Your task to perform on an android device: View the shopping cart on walmart.com. Add "macbook pro" to the cart on walmart.com, then select checkout. Image 0: 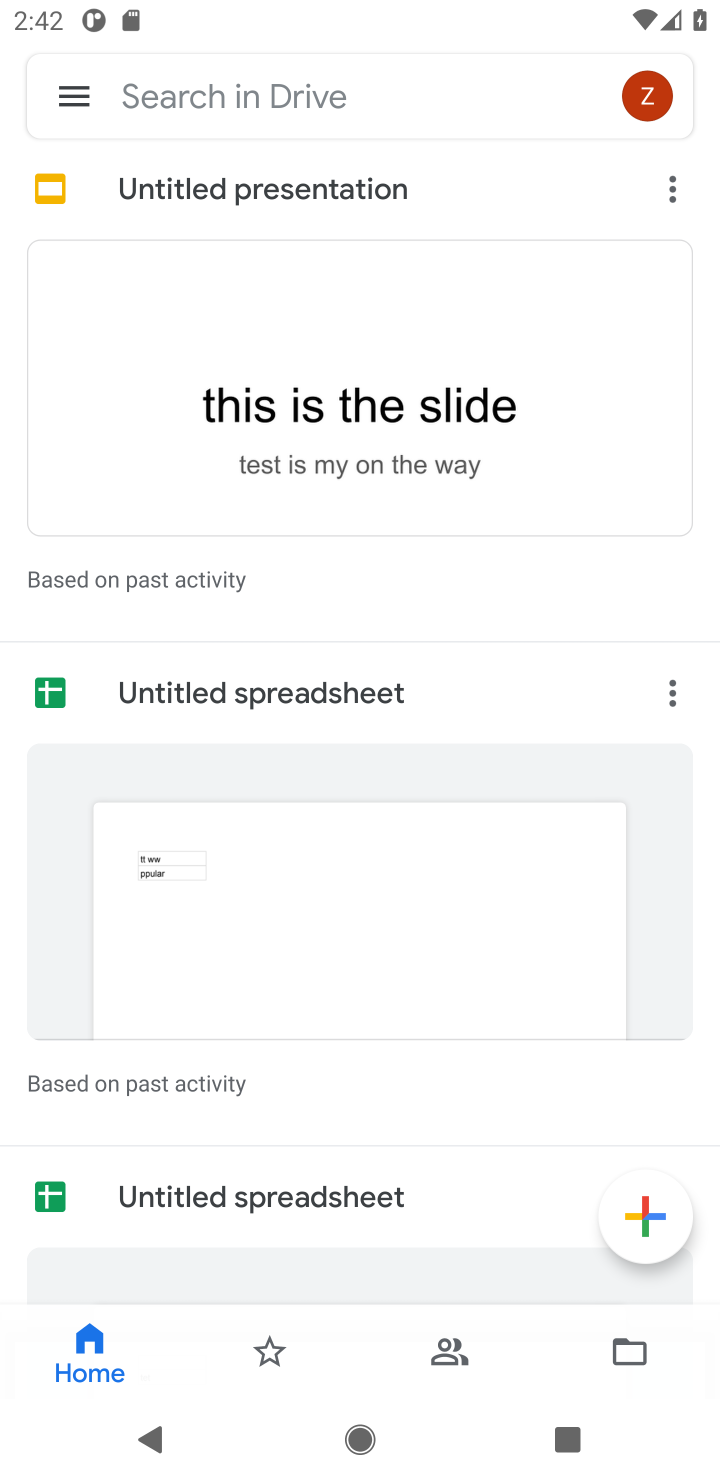
Step 0: press home button
Your task to perform on an android device: View the shopping cart on walmart.com. Add "macbook pro" to the cart on walmart.com, then select checkout. Image 1: 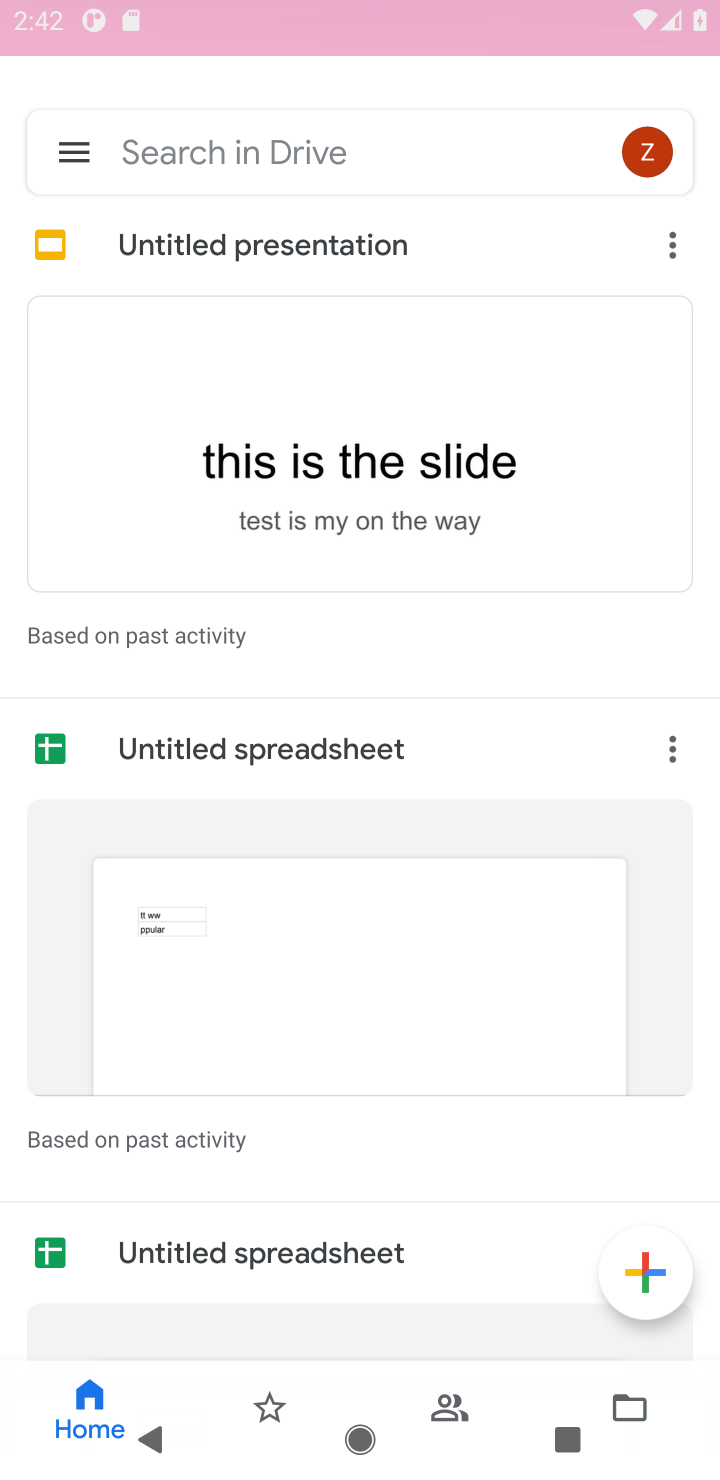
Step 1: press home button
Your task to perform on an android device: View the shopping cart on walmart.com. Add "macbook pro" to the cart on walmart.com, then select checkout. Image 2: 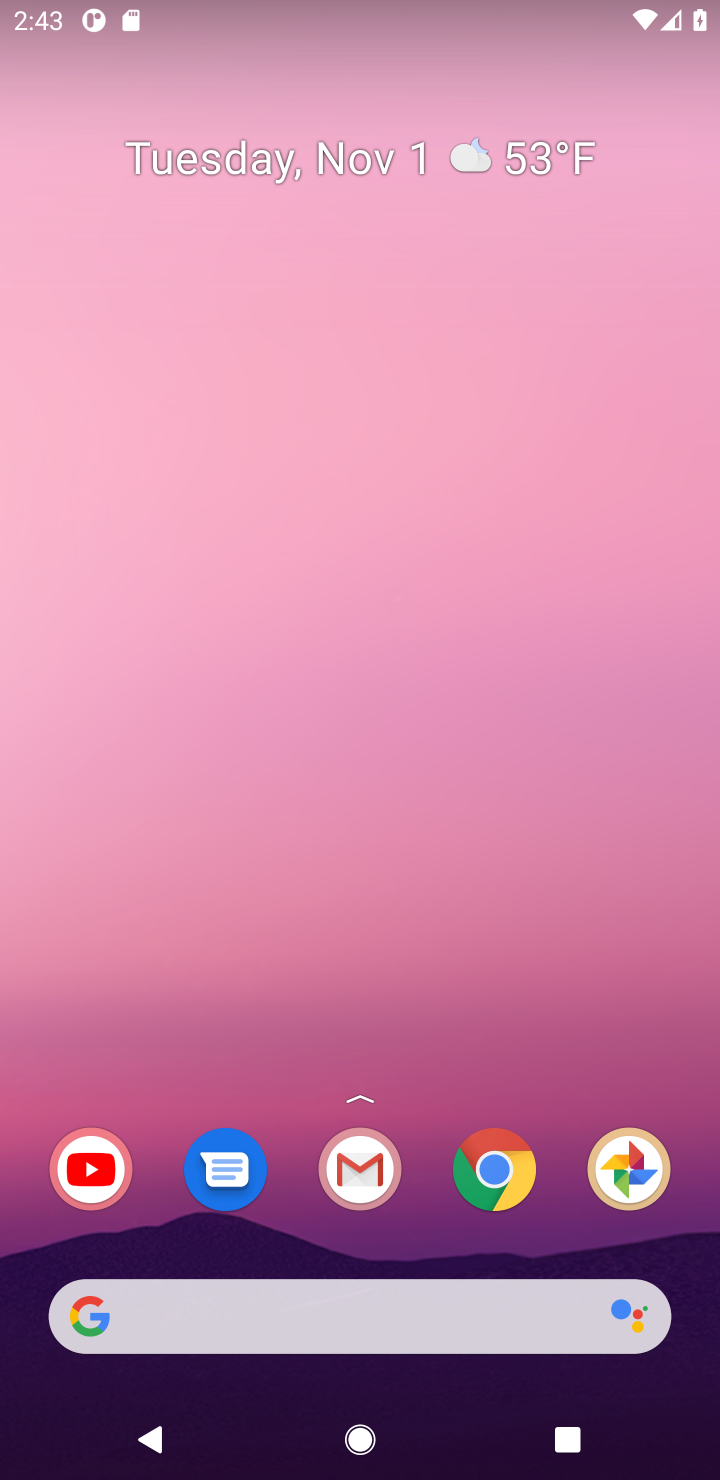
Step 2: drag from (415, 1117) to (489, 65)
Your task to perform on an android device: View the shopping cart on walmart.com. Add "macbook pro" to the cart on walmart.com, then select checkout. Image 3: 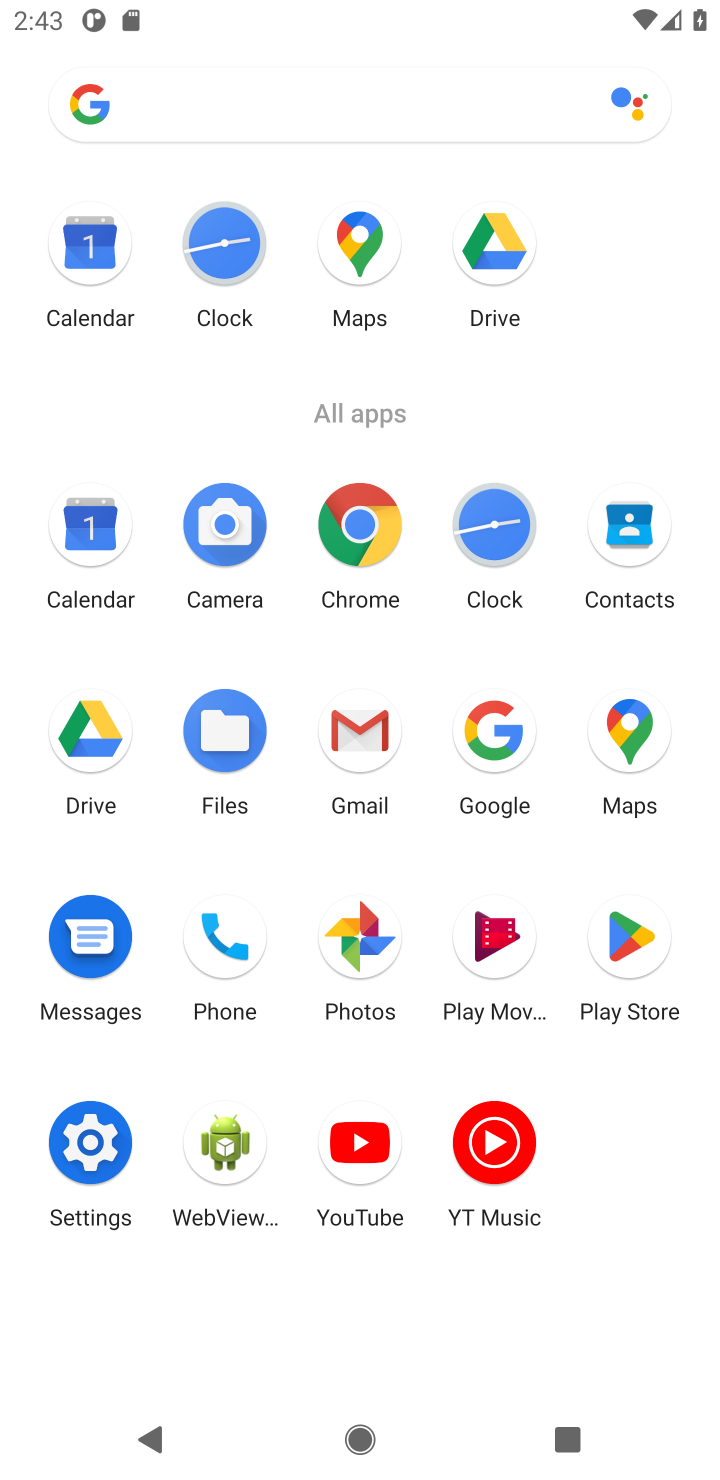
Step 3: click (361, 518)
Your task to perform on an android device: View the shopping cart on walmart.com. Add "macbook pro" to the cart on walmart.com, then select checkout. Image 4: 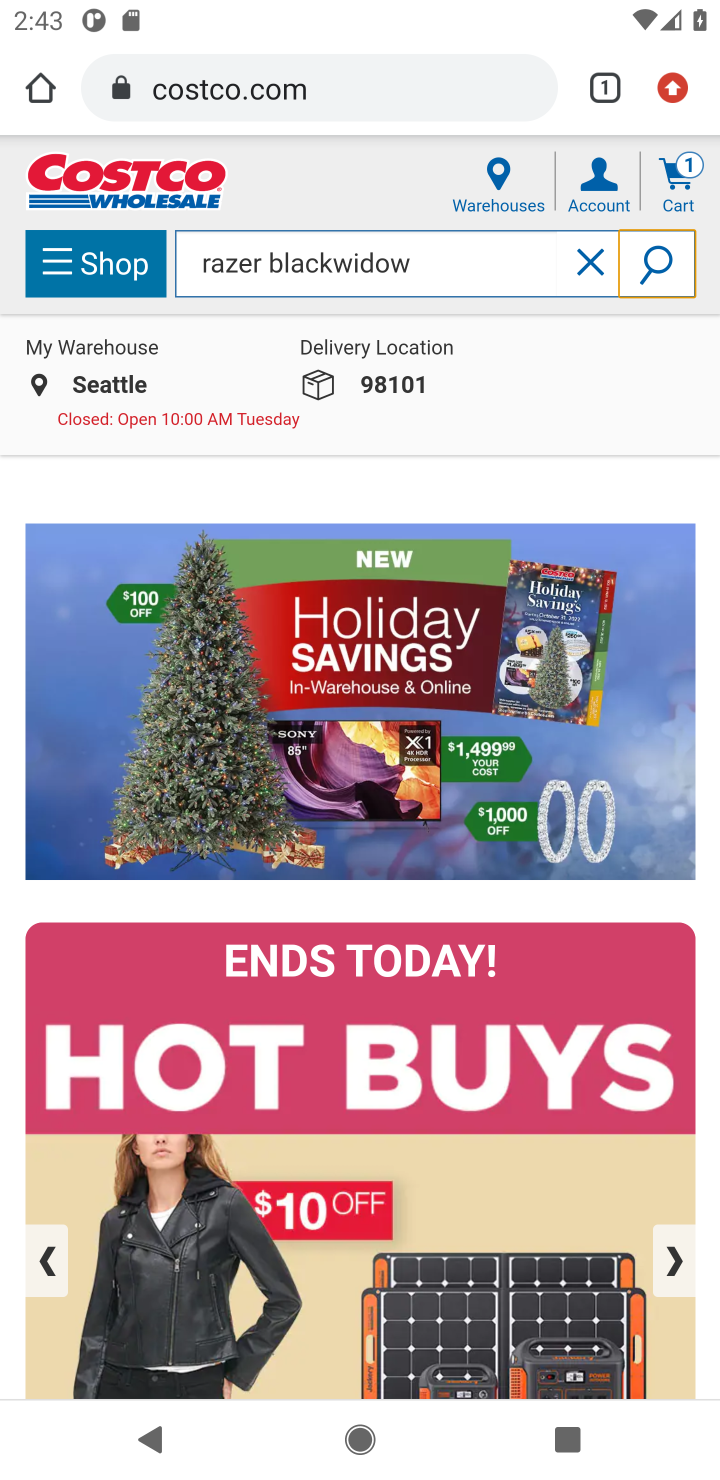
Step 4: click (247, 88)
Your task to perform on an android device: View the shopping cart on walmart.com. Add "macbook pro" to the cart on walmart.com, then select checkout. Image 5: 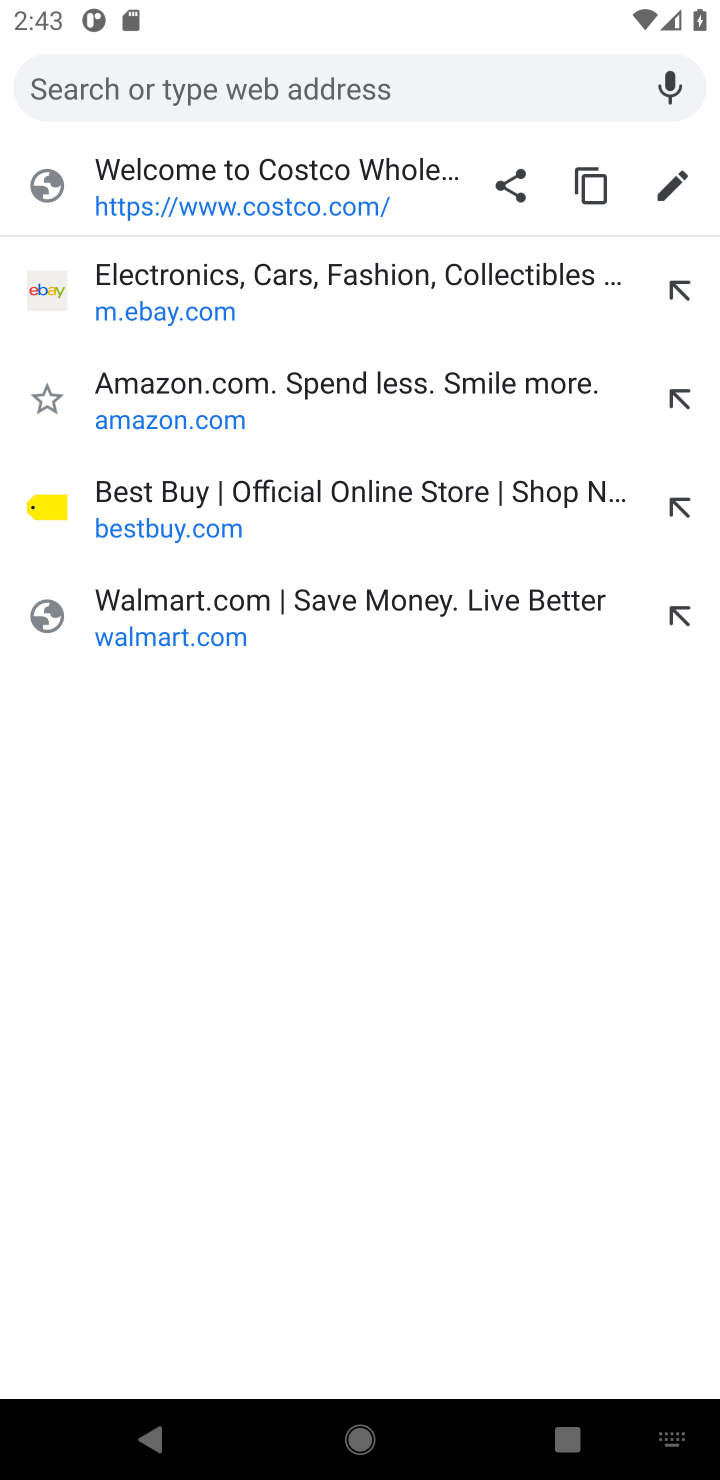
Step 5: type "walmart"
Your task to perform on an android device: View the shopping cart on walmart.com. Add "macbook pro" to the cart on walmart.com, then select checkout. Image 6: 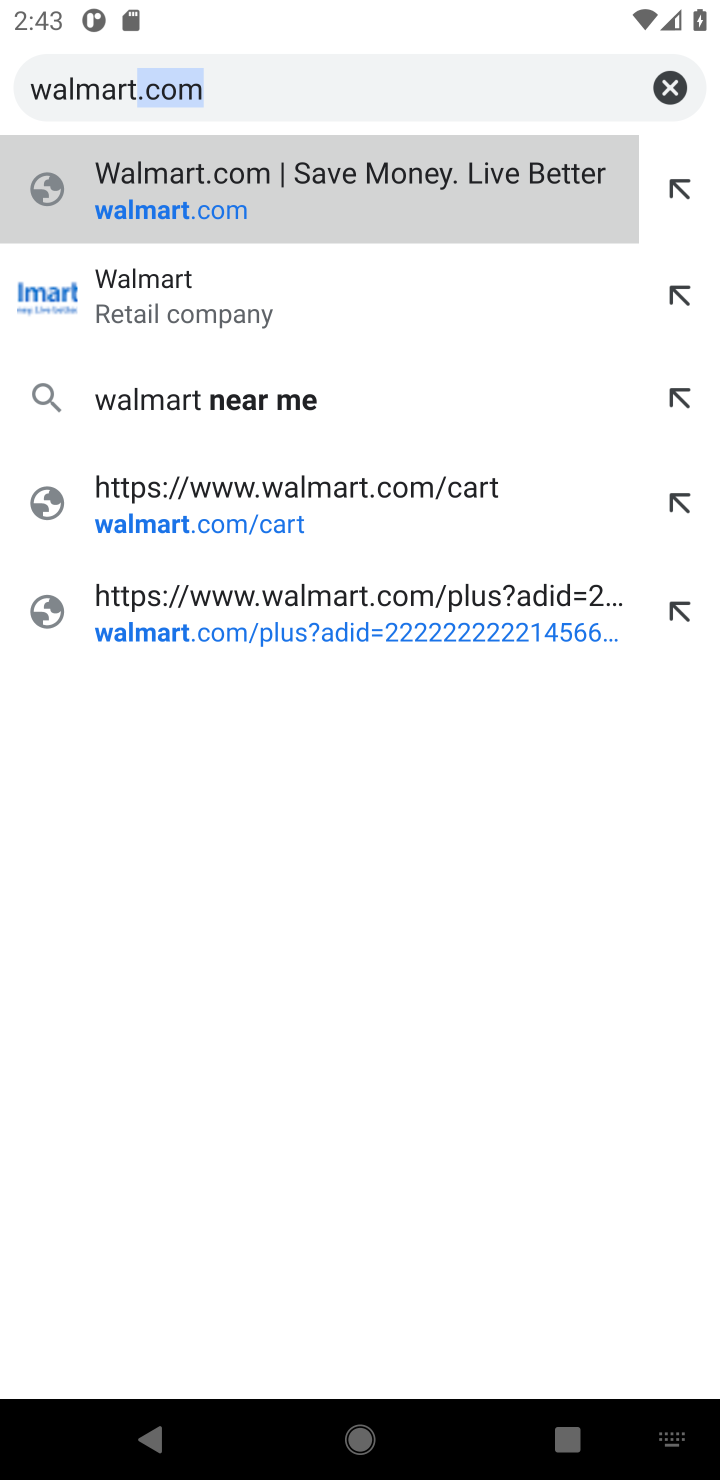
Step 6: click (226, 207)
Your task to perform on an android device: View the shopping cart on walmart.com. Add "macbook pro" to the cart on walmart.com, then select checkout. Image 7: 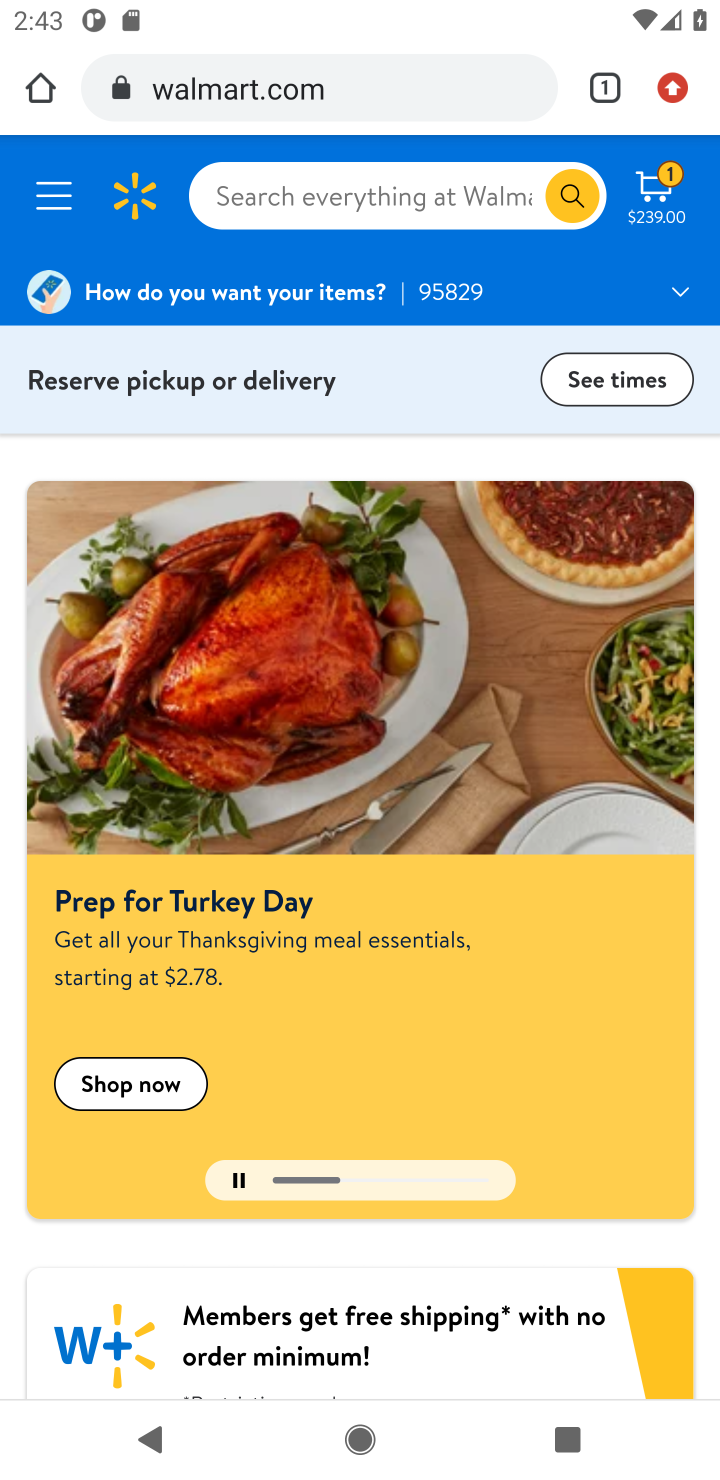
Step 7: click (318, 193)
Your task to perform on an android device: View the shopping cart on walmart.com. Add "macbook pro" to the cart on walmart.com, then select checkout. Image 8: 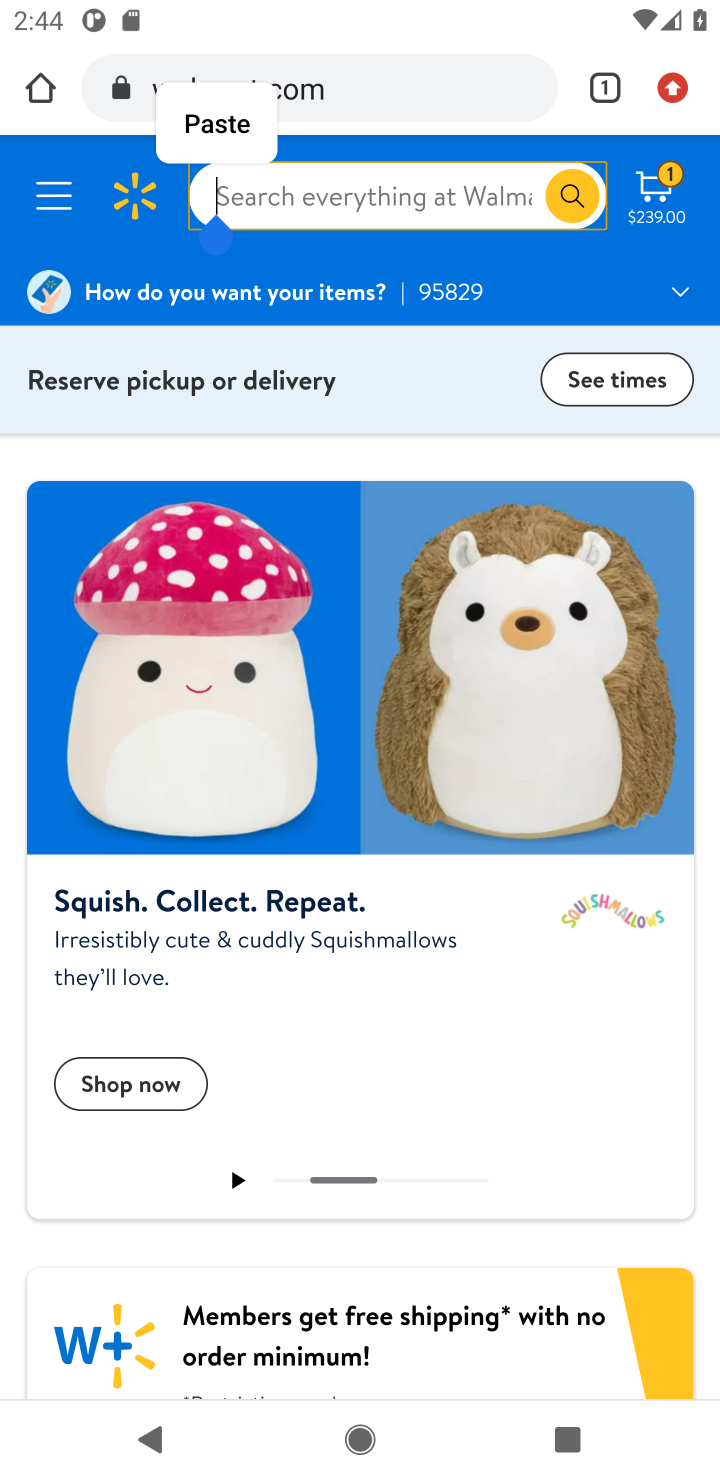
Step 8: type "macbook pro"
Your task to perform on an android device: View the shopping cart on walmart.com. Add "macbook pro" to the cart on walmart.com, then select checkout. Image 9: 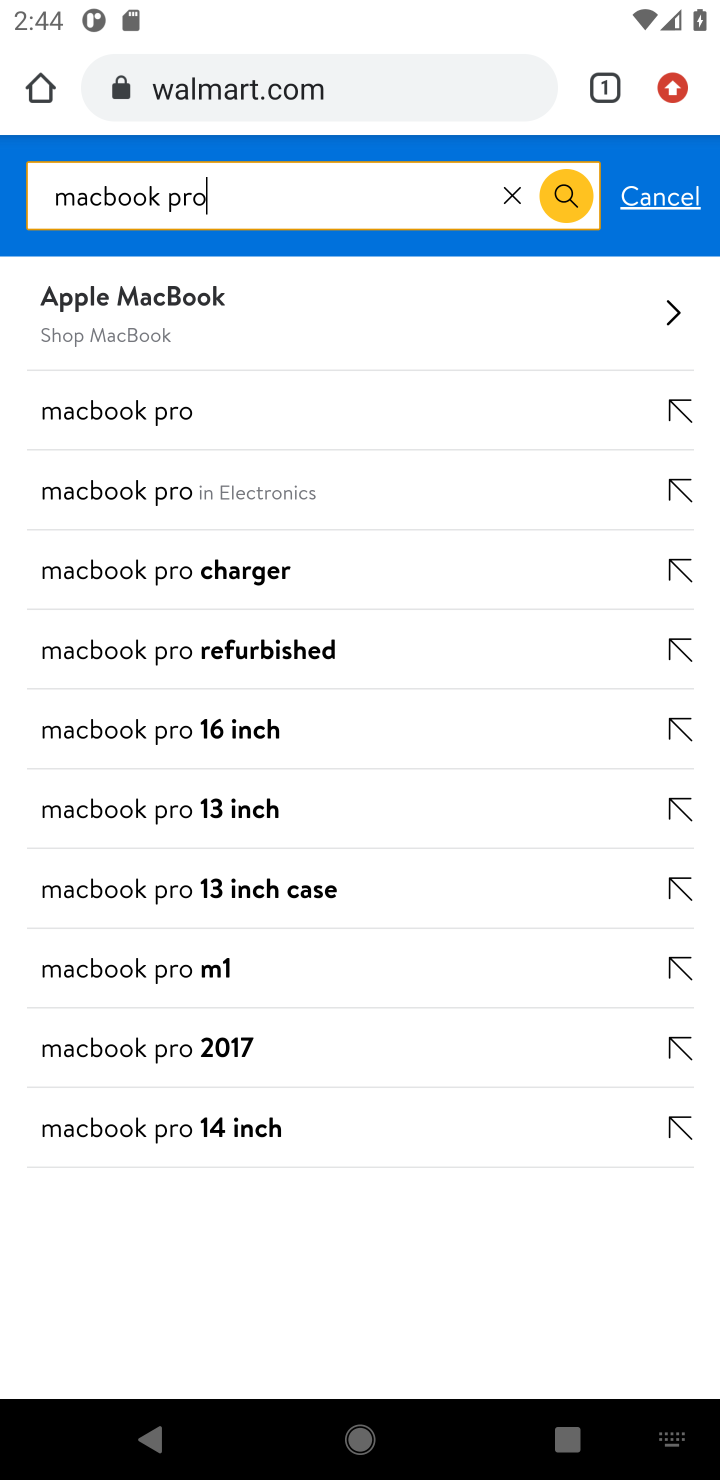
Step 9: click (214, 424)
Your task to perform on an android device: View the shopping cart on walmart.com. Add "macbook pro" to the cart on walmart.com, then select checkout. Image 10: 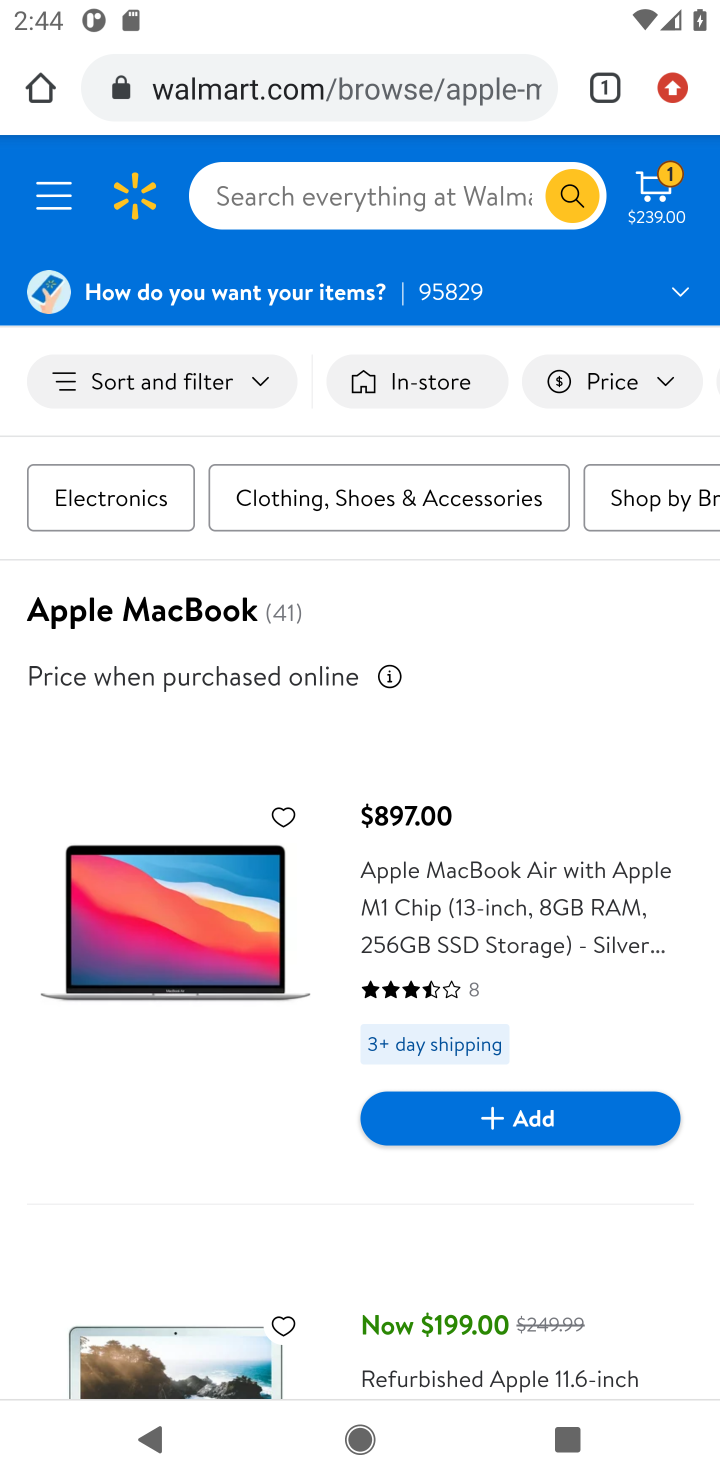
Step 10: click (445, 921)
Your task to perform on an android device: View the shopping cart on walmart.com. Add "macbook pro" to the cart on walmart.com, then select checkout. Image 11: 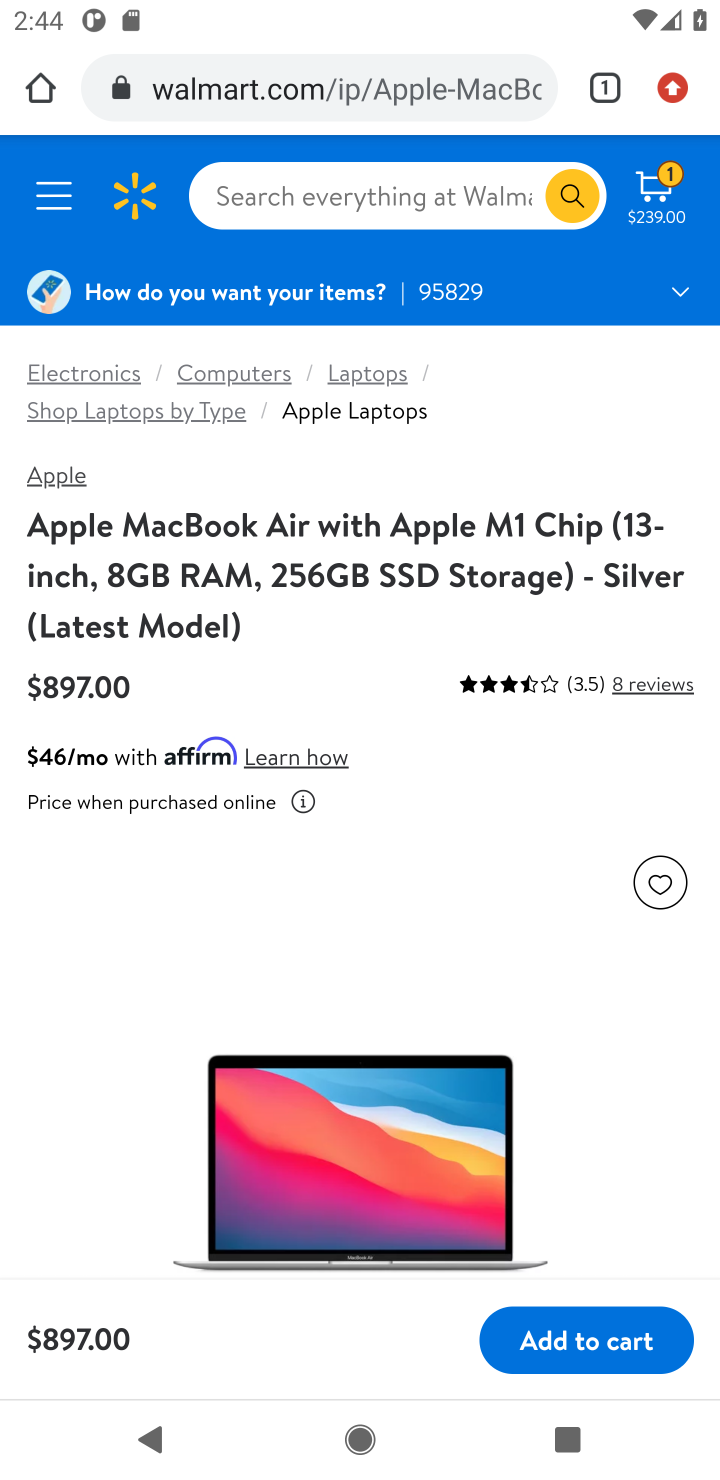
Step 11: drag from (144, 1192) to (249, 299)
Your task to perform on an android device: View the shopping cart on walmart.com. Add "macbook pro" to the cart on walmart.com, then select checkout. Image 12: 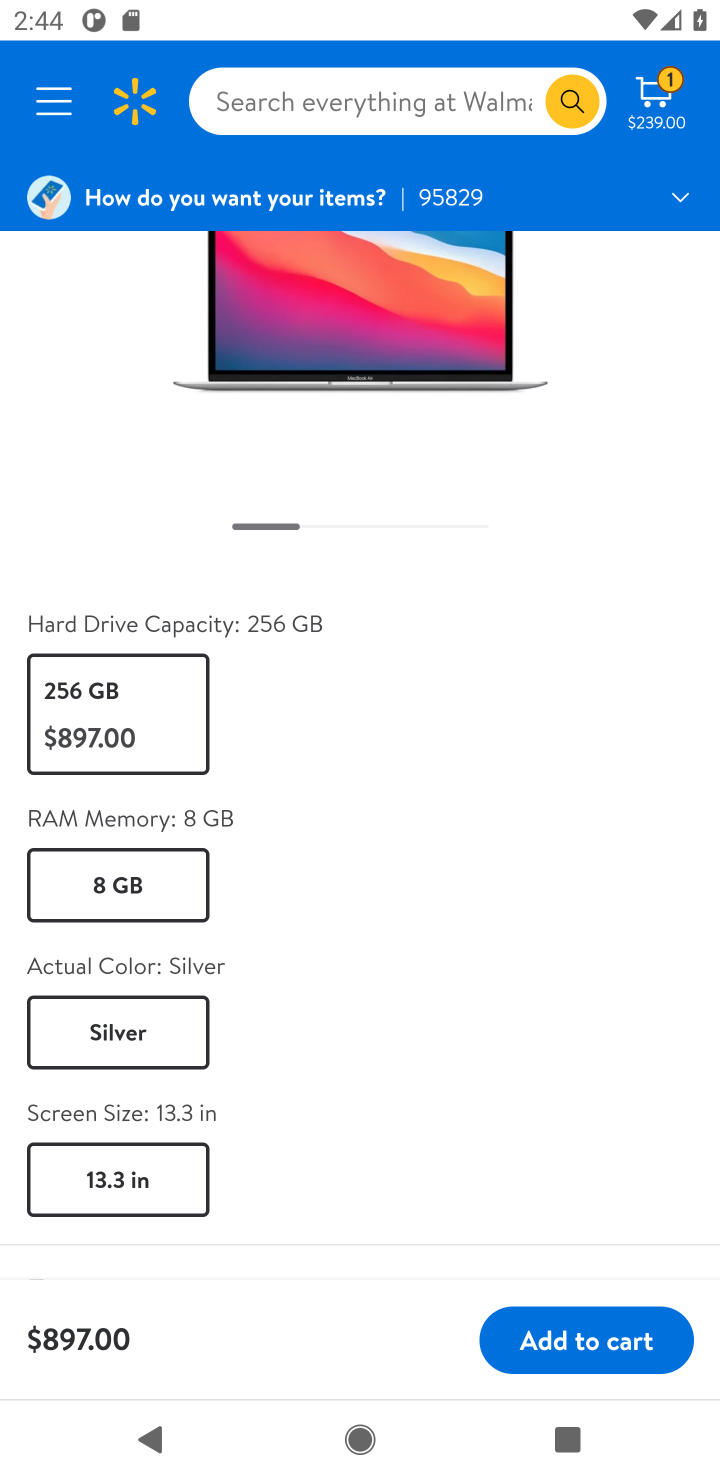
Step 12: click (623, 1347)
Your task to perform on an android device: View the shopping cart on walmart.com. Add "macbook pro" to the cart on walmart.com, then select checkout. Image 13: 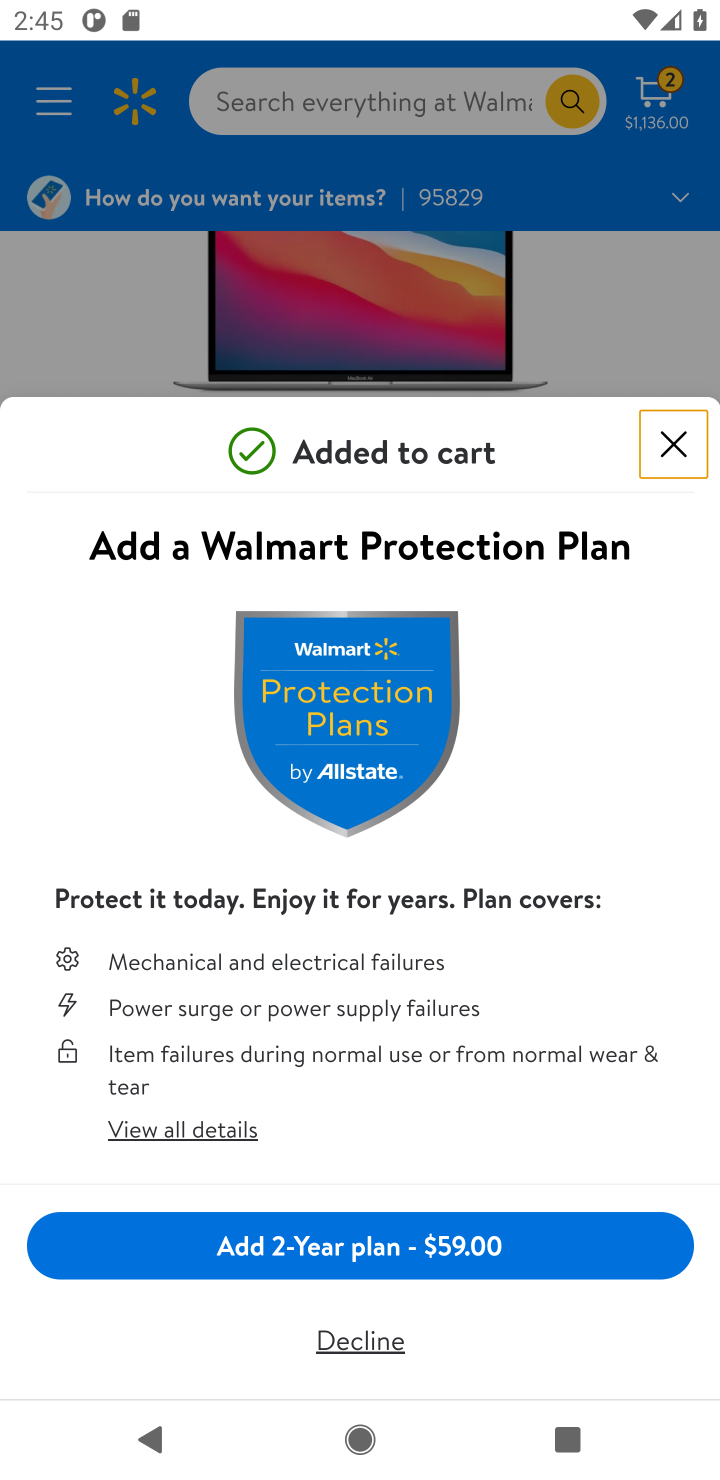
Step 13: click (684, 449)
Your task to perform on an android device: View the shopping cart on walmart.com. Add "macbook pro" to the cart on walmart.com, then select checkout. Image 14: 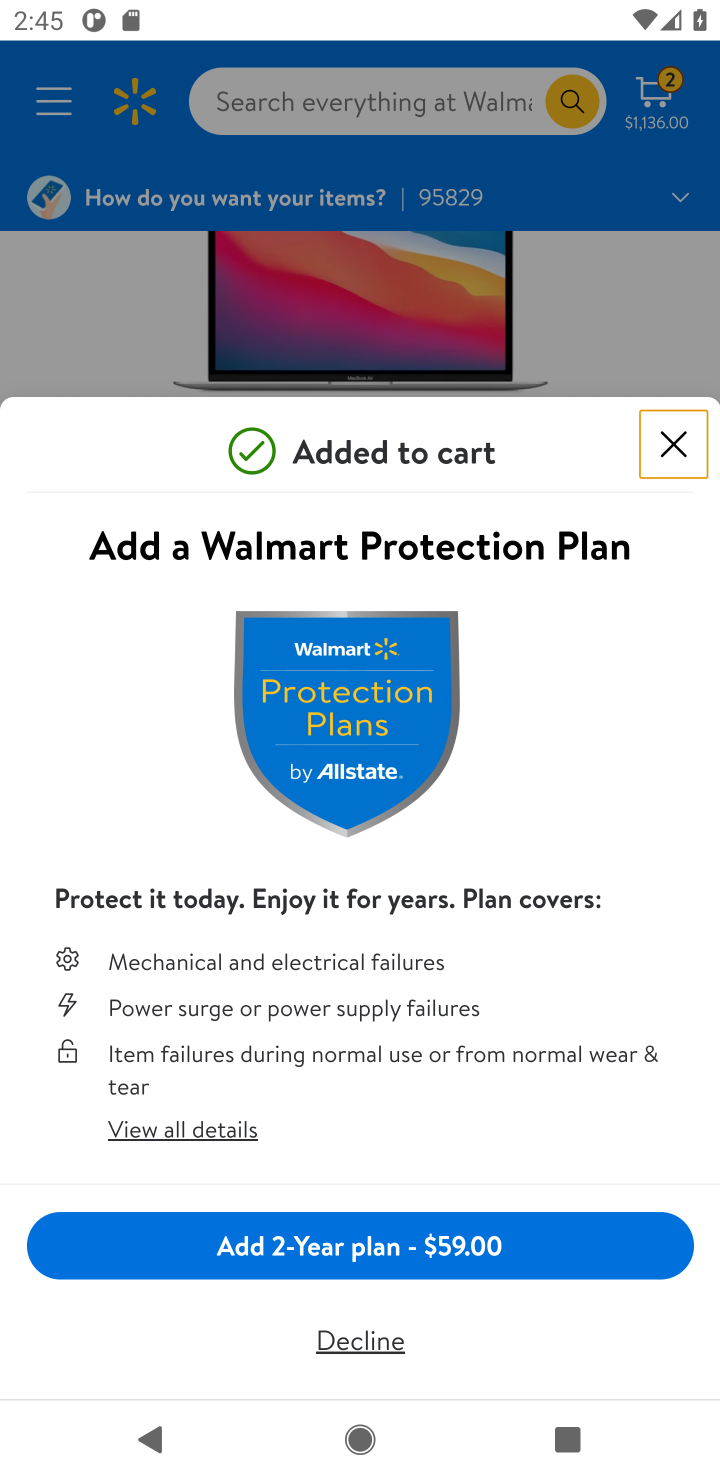
Step 14: click (342, 1344)
Your task to perform on an android device: View the shopping cart on walmart.com. Add "macbook pro" to the cart on walmart.com, then select checkout. Image 15: 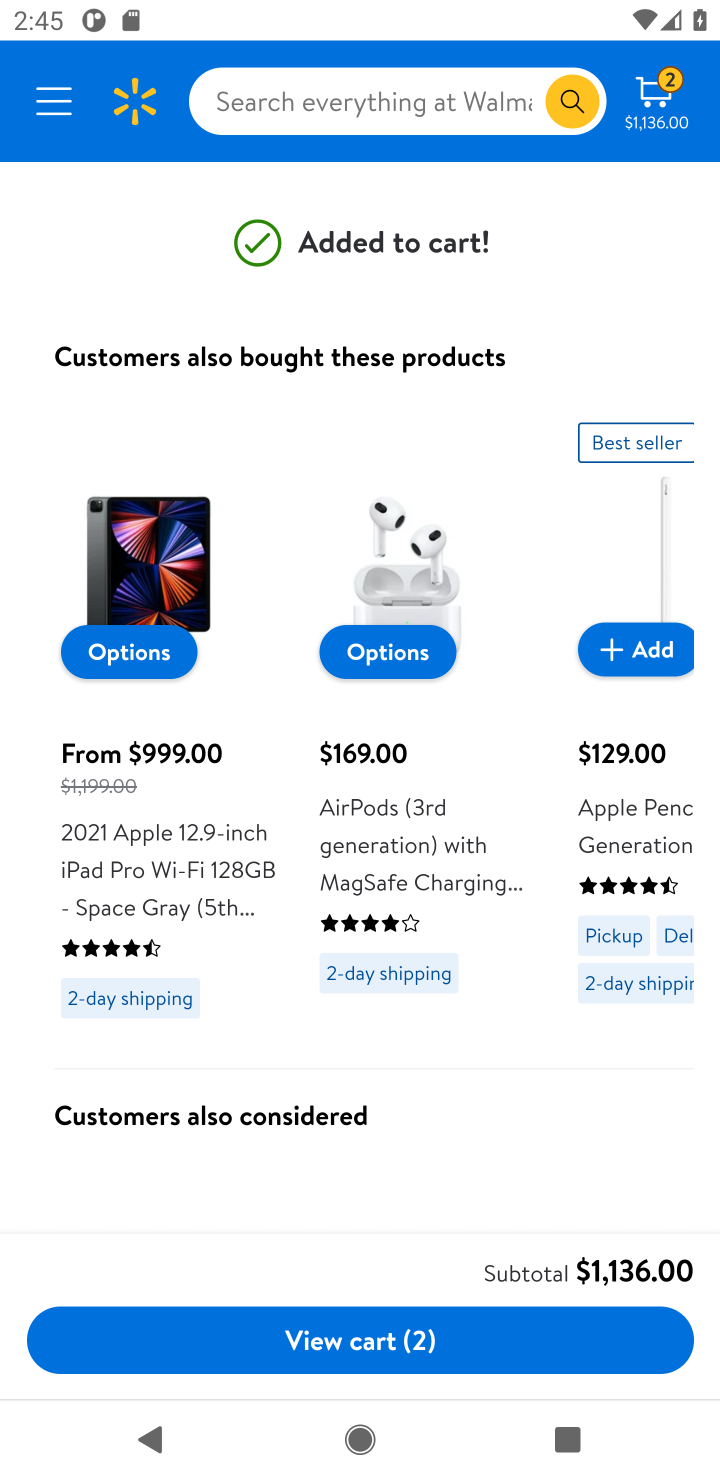
Step 15: click (656, 81)
Your task to perform on an android device: View the shopping cart on walmart.com. Add "macbook pro" to the cart on walmart.com, then select checkout. Image 16: 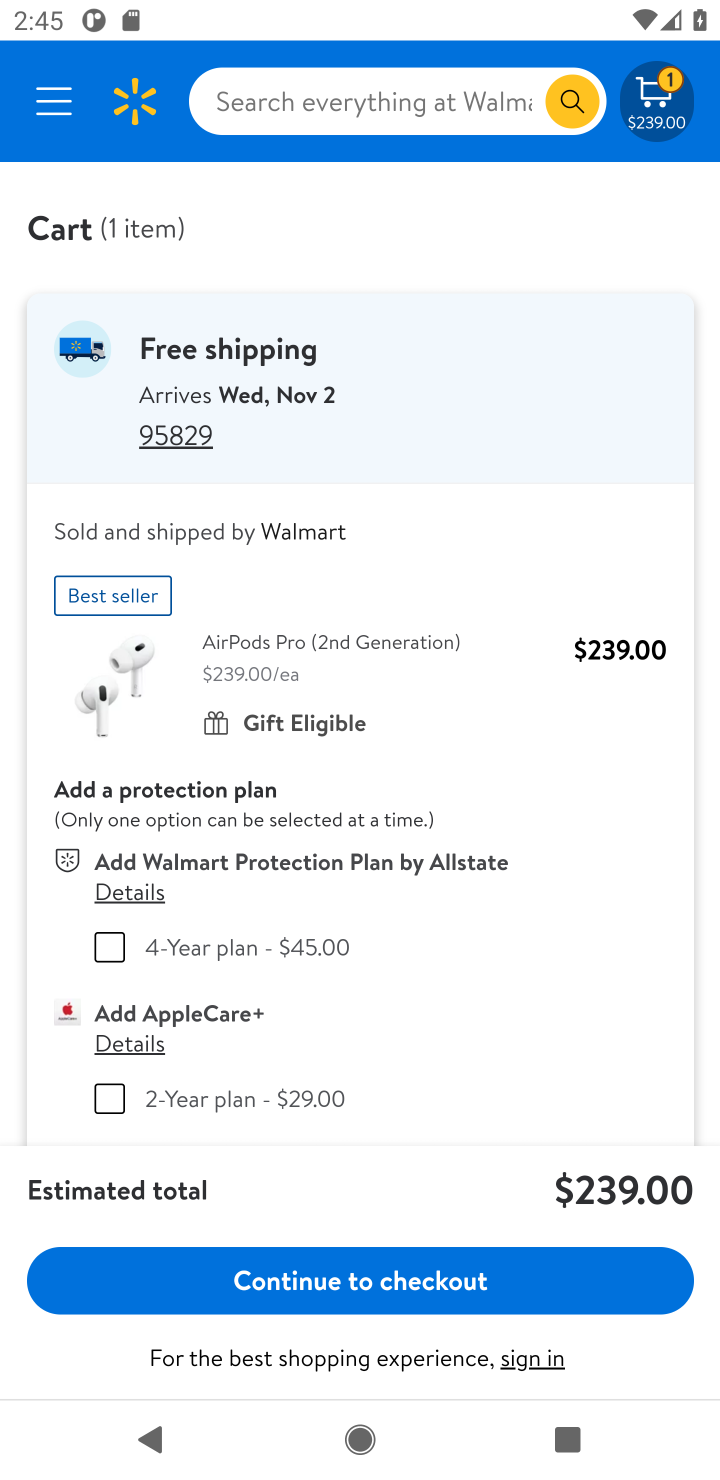
Step 16: click (378, 1277)
Your task to perform on an android device: View the shopping cart on walmart.com. Add "macbook pro" to the cart on walmart.com, then select checkout. Image 17: 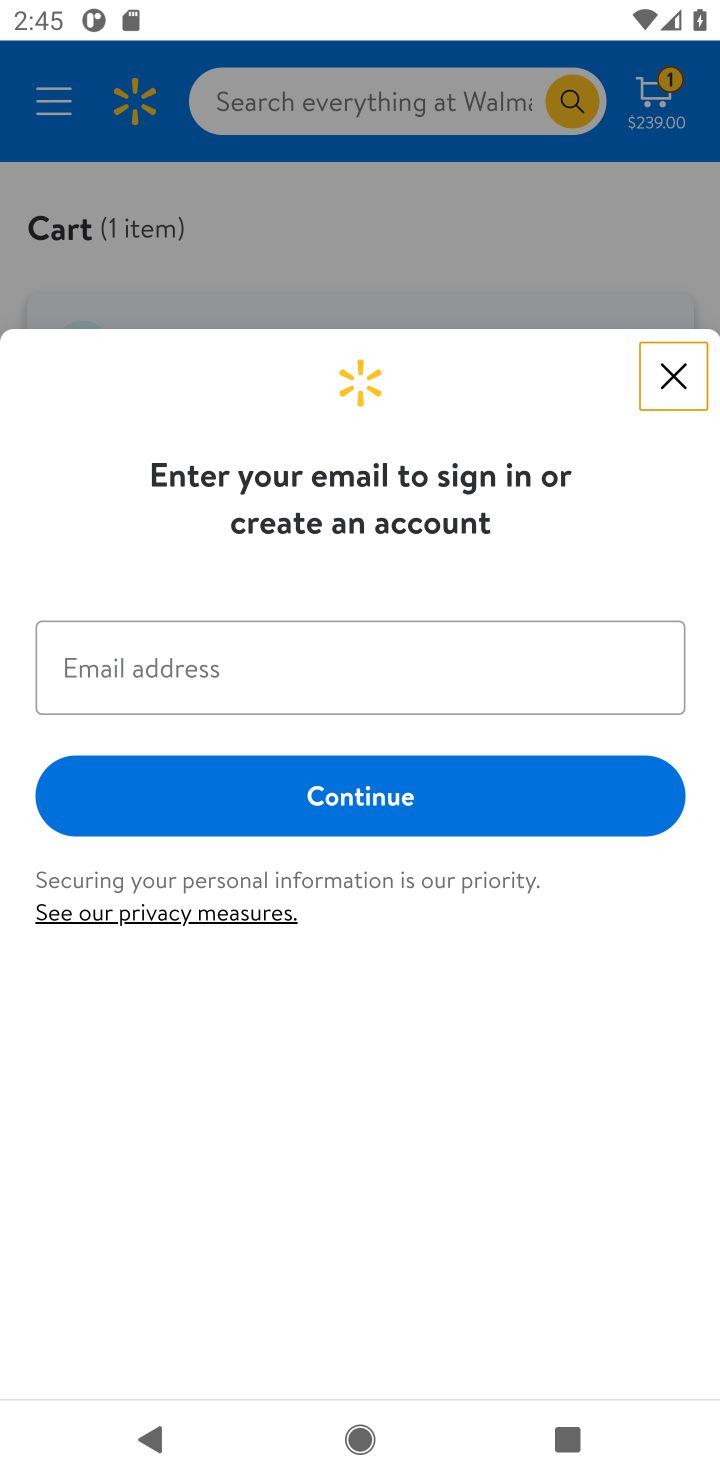
Step 17: task complete